Your task to perform on an android device: check out phone information Image 0: 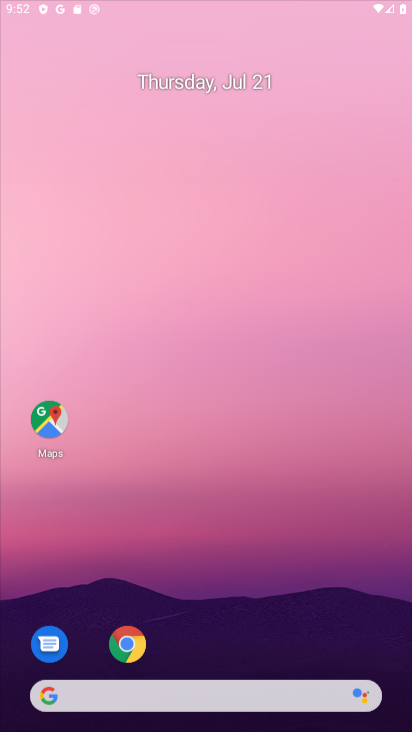
Step 0: press home button
Your task to perform on an android device: check out phone information Image 1: 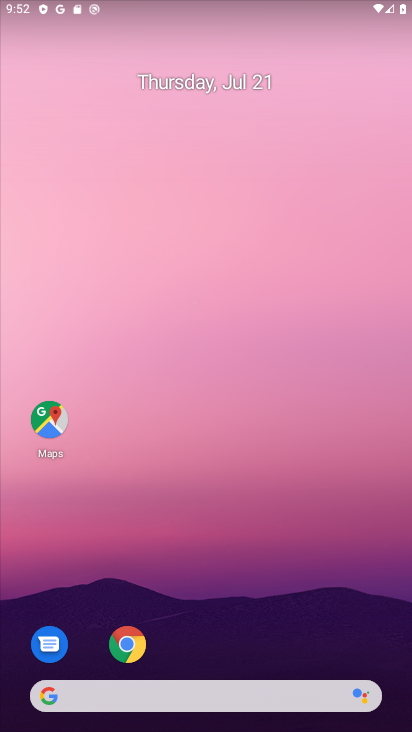
Step 1: drag from (220, 648) to (244, 66)
Your task to perform on an android device: check out phone information Image 2: 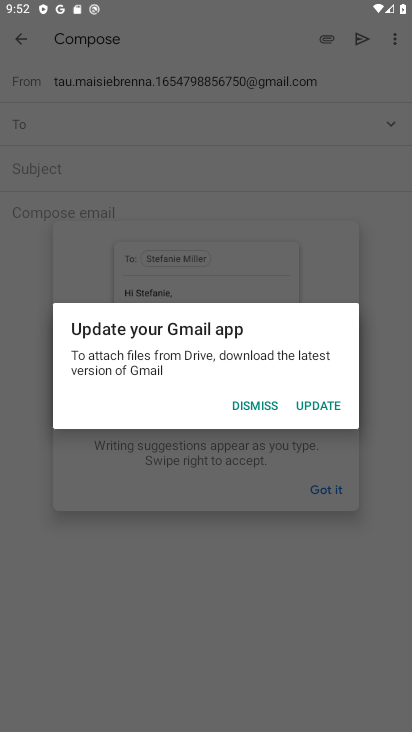
Step 2: press home button
Your task to perform on an android device: check out phone information Image 3: 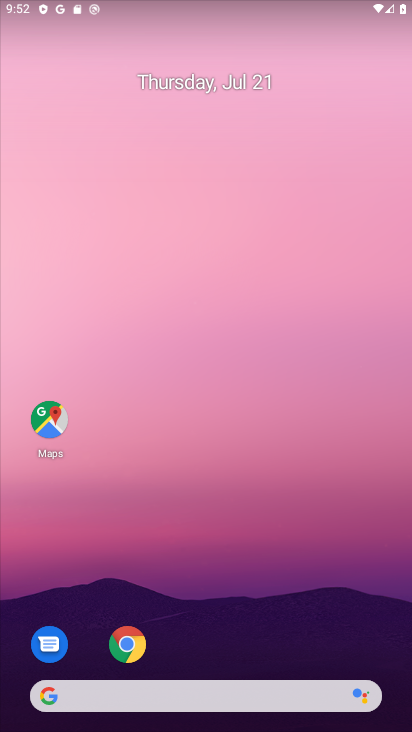
Step 3: drag from (205, 665) to (252, 4)
Your task to perform on an android device: check out phone information Image 4: 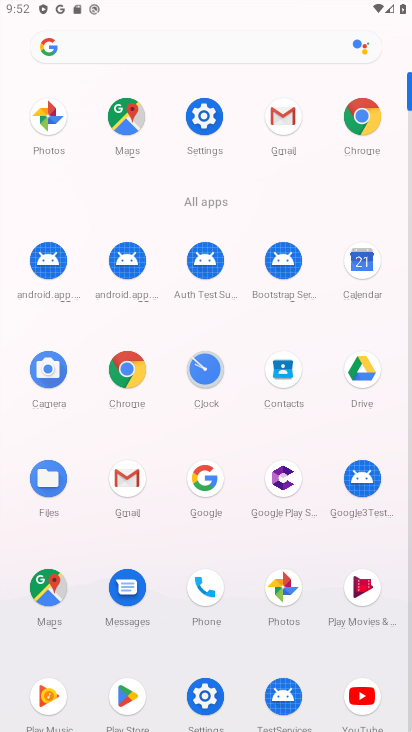
Step 4: click (205, 688)
Your task to perform on an android device: check out phone information Image 5: 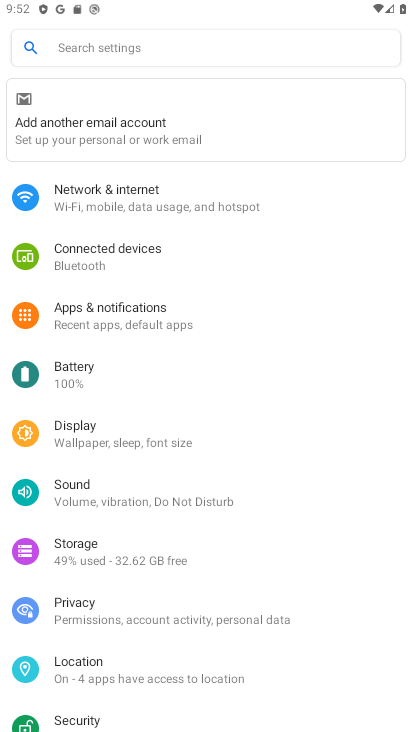
Step 5: drag from (193, 678) to (226, 70)
Your task to perform on an android device: check out phone information Image 6: 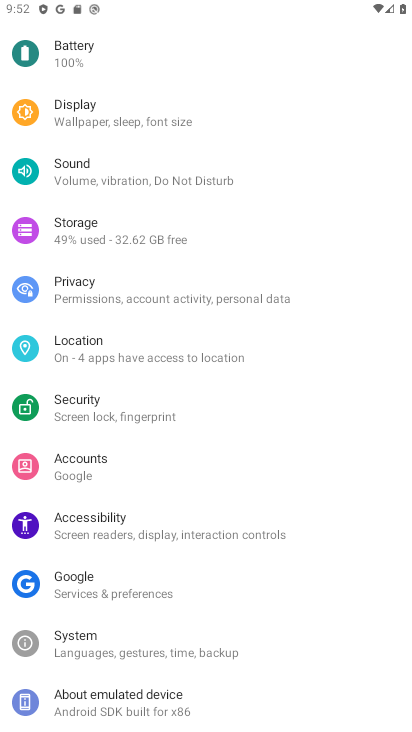
Step 6: click (204, 703)
Your task to perform on an android device: check out phone information Image 7: 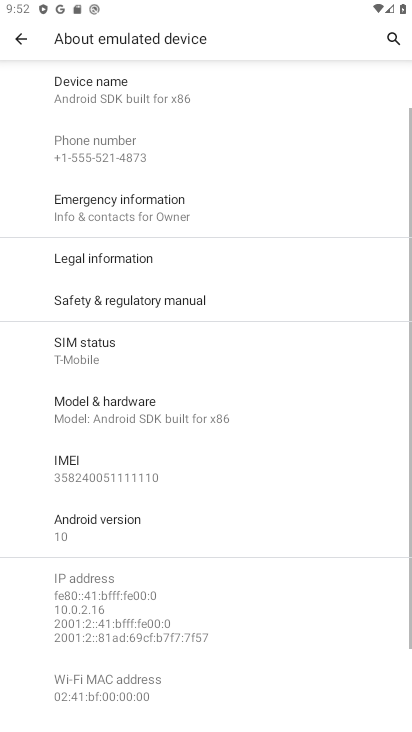
Step 7: task complete